Your task to perform on an android device: find snoozed emails in the gmail app Image 0: 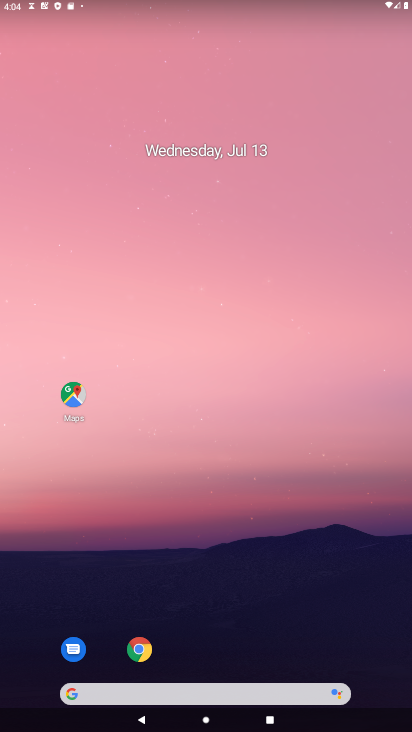
Step 0: click (329, 619)
Your task to perform on an android device: find snoozed emails in the gmail app Image 1: 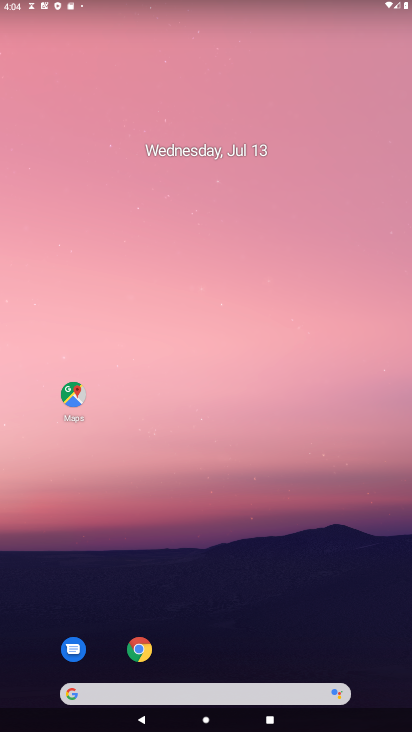
Step 1: click (238, 699)
Your task to perform on an android device: find snoozed emails in the gmail app Image 2: 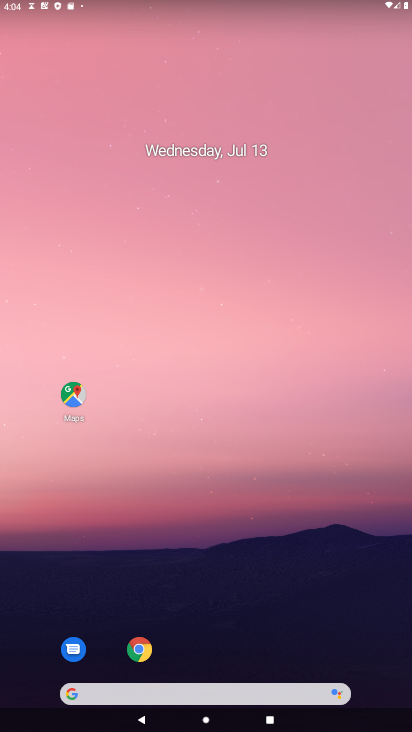
Step 2: drag from (233, 349) to (233, 72)
Your task to perform on an android device: find snoozed emails in the gmail app Image 3: 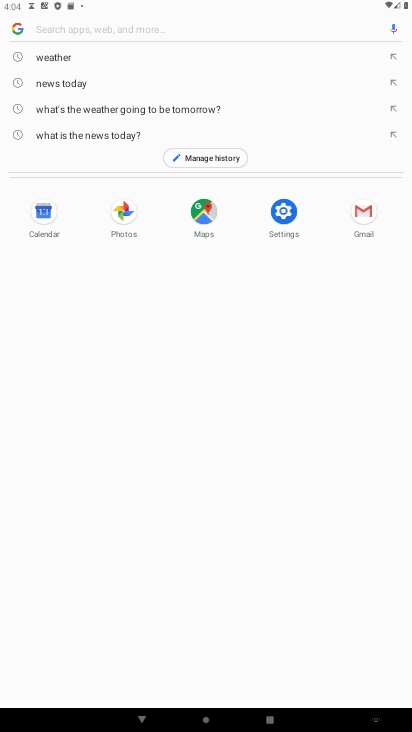
Step 3: press home button
Your task to perform on an android device: find snoozed emails in the gmail app Image 4: 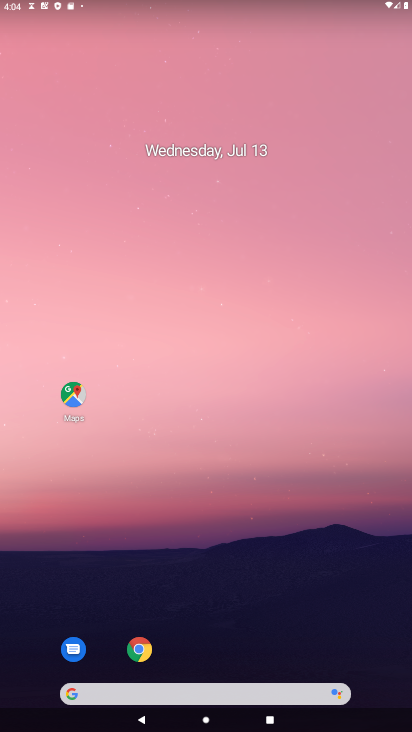
Step 4: drag from (223, 702) to (212, 156)
Your task to perform on an android device: find snoozed emails in the gmail app Image 5: 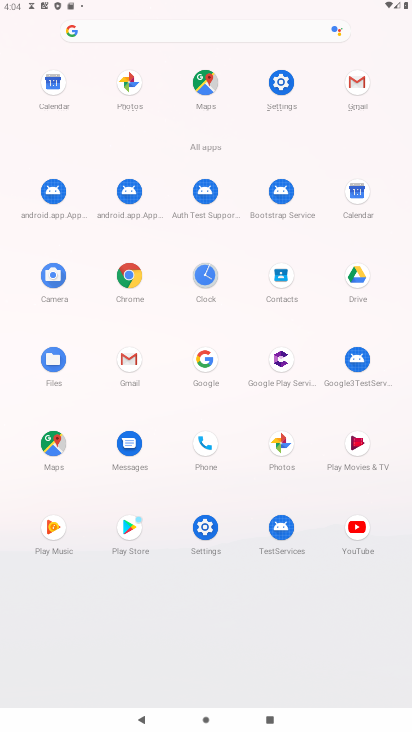
Step 5: drag from (243, 725) to (261, 172)
Your task to perform on an android device: find snoozed emails in the gmail app Image 6: 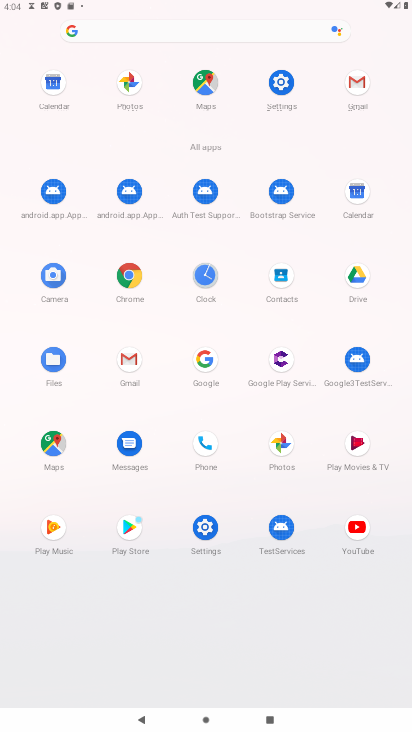
Step 6: click (128, 362)
Your task to perform on an android device: find snoozed emails in the gmail app Image 7: 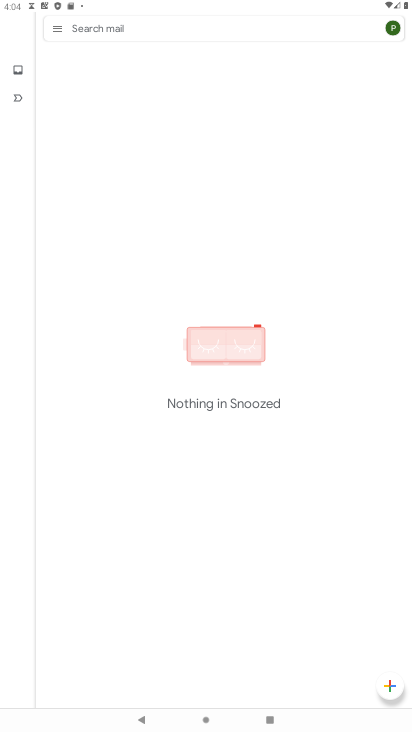
Step 7: click (54, 30)
Your task to perform on an android device: find snoozed emails in the gmail app Image 8: 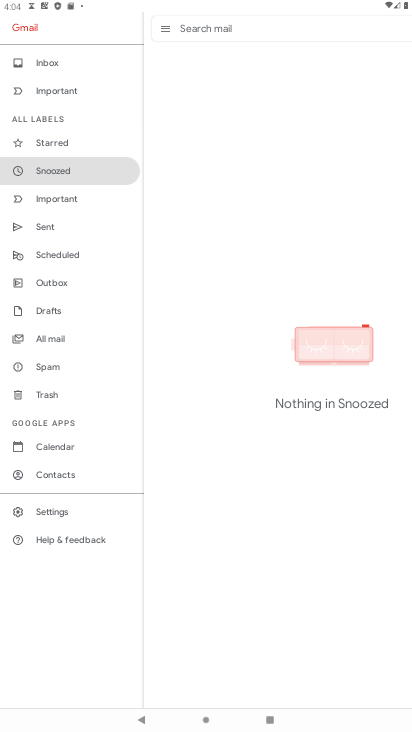
Step 8: click (46, 170)
Your task to perform on an android device: find snoozed emails in the gmail app Image 9: 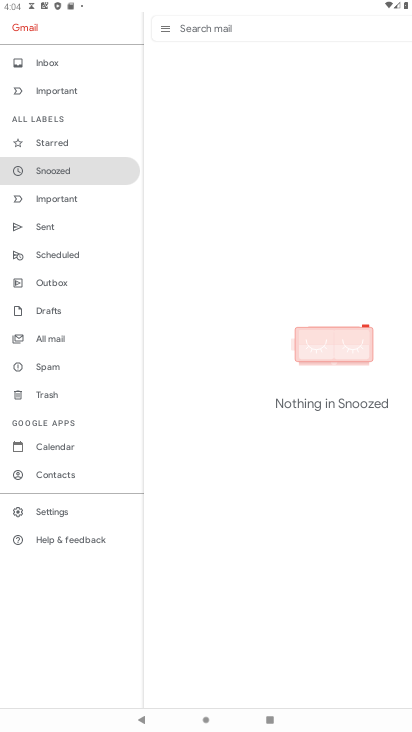
Step 9: task complete